Your task to perform on an android device: Search for vintage wall art on Etsy. Image 0: 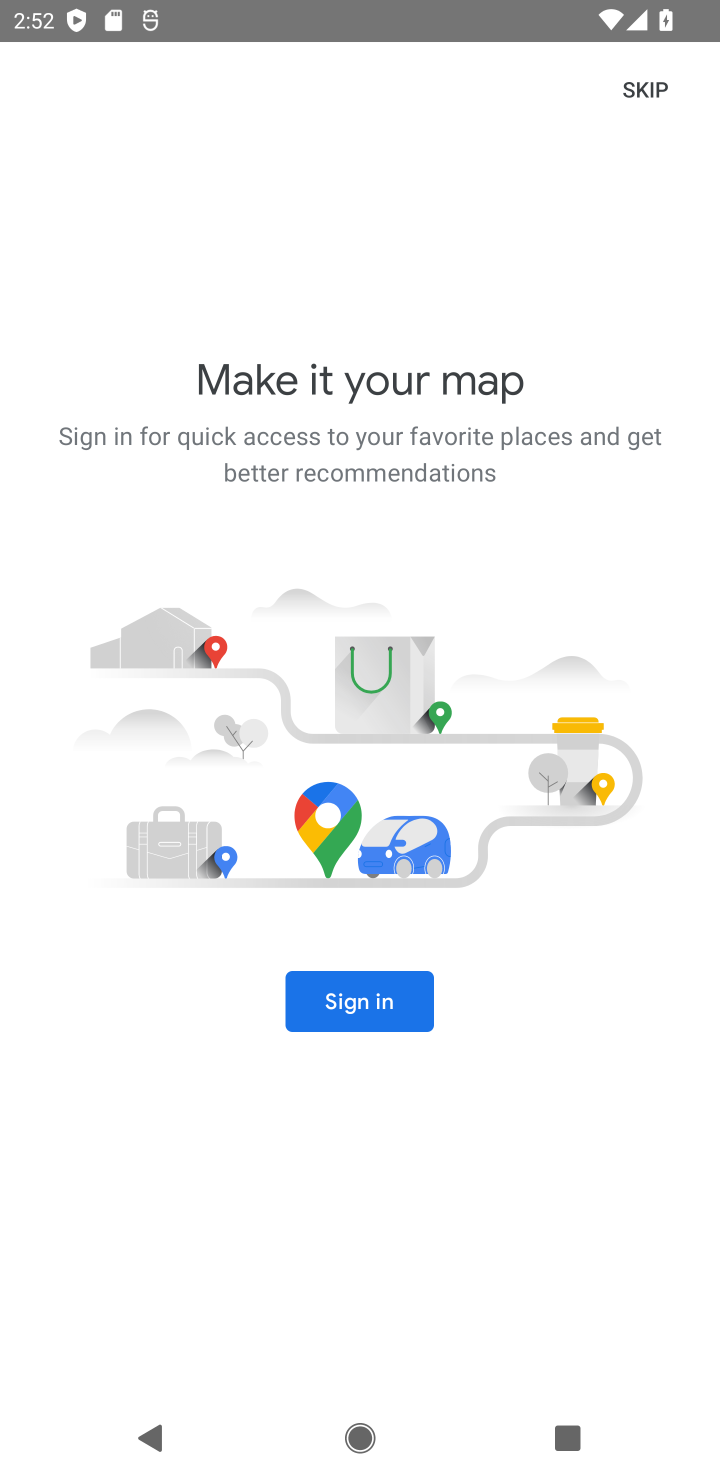
Step 0: press home button
Your task to perform on an android device: Search for vintage wall art on Etsy. Image 1: 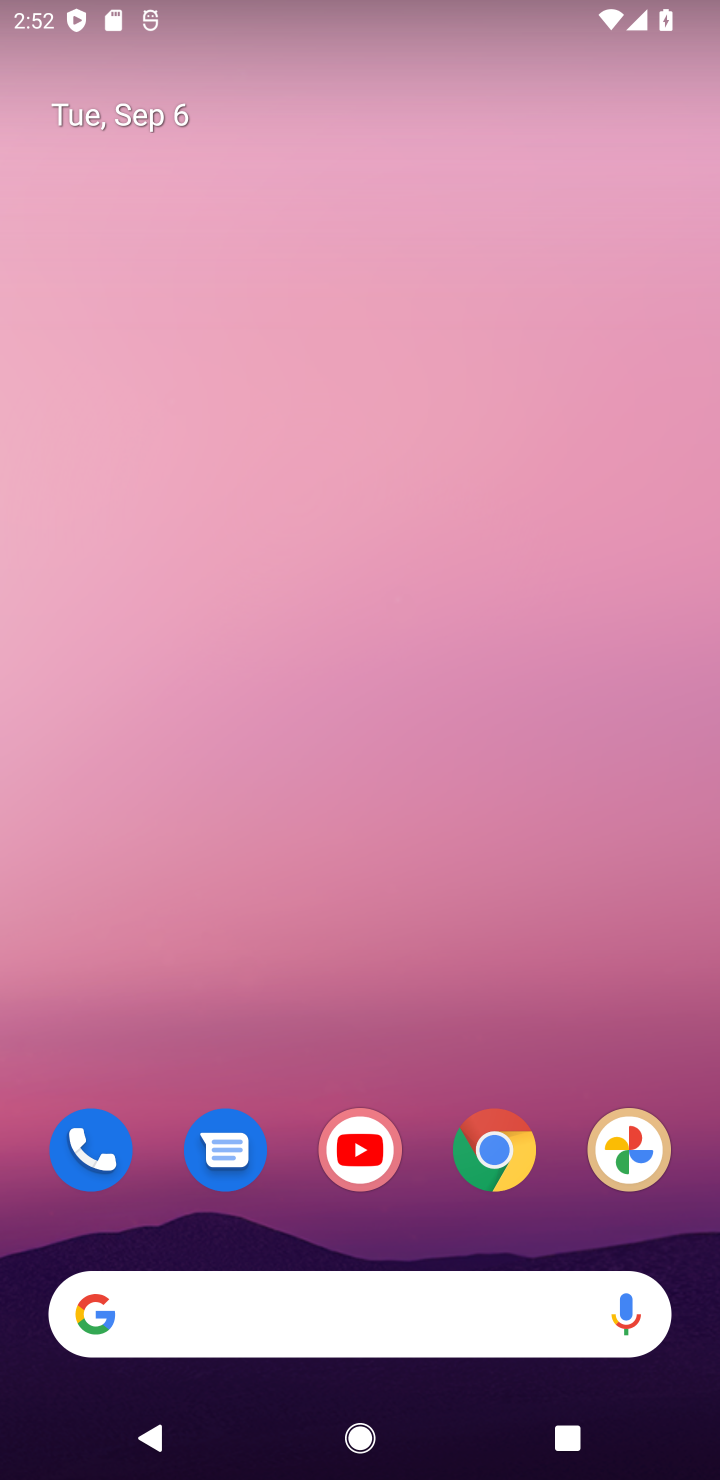
Step 1: click (484, 1155)
Your task to perform on an android device: Search for vintage wall art on Etsy. Image 2: 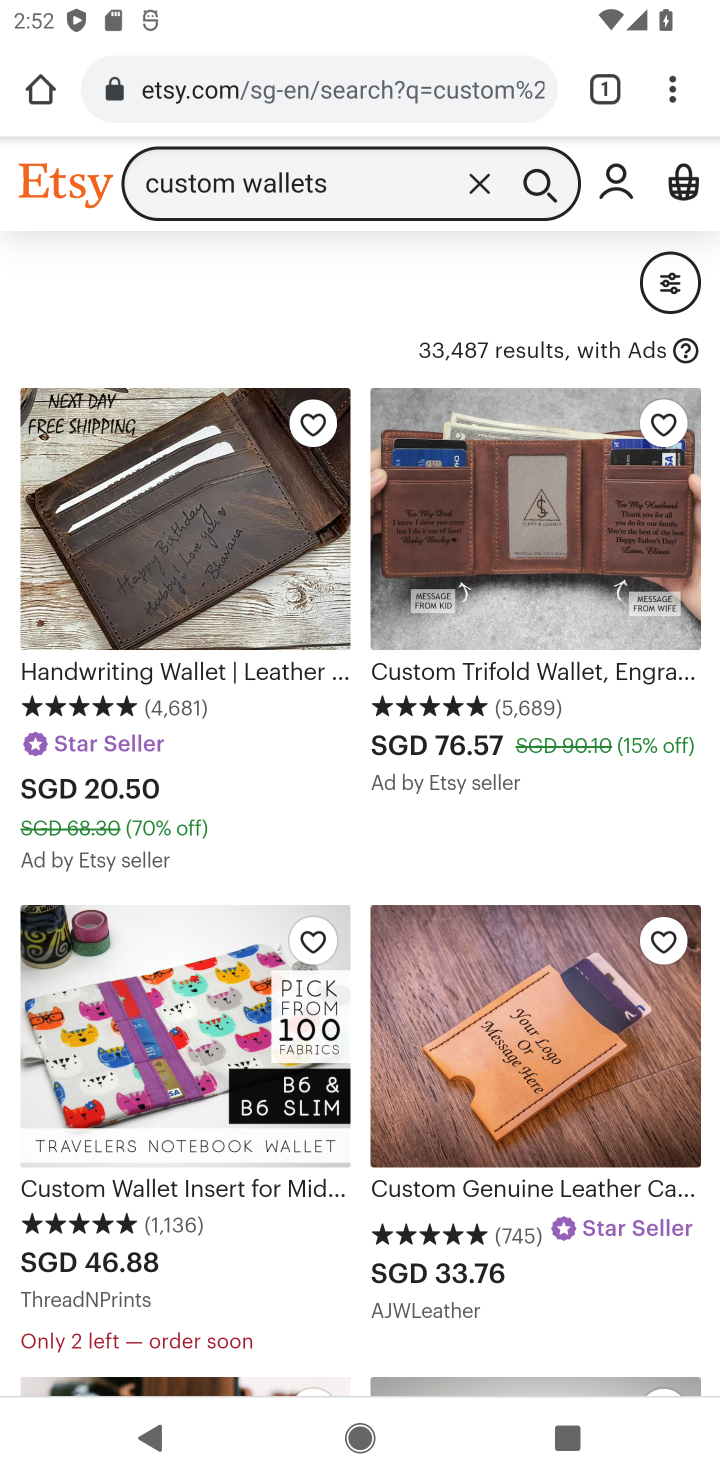
Step 2: click (536, 185)
Your task to perform on an android device: Search for vintage wall art on Etsy. Image 3: 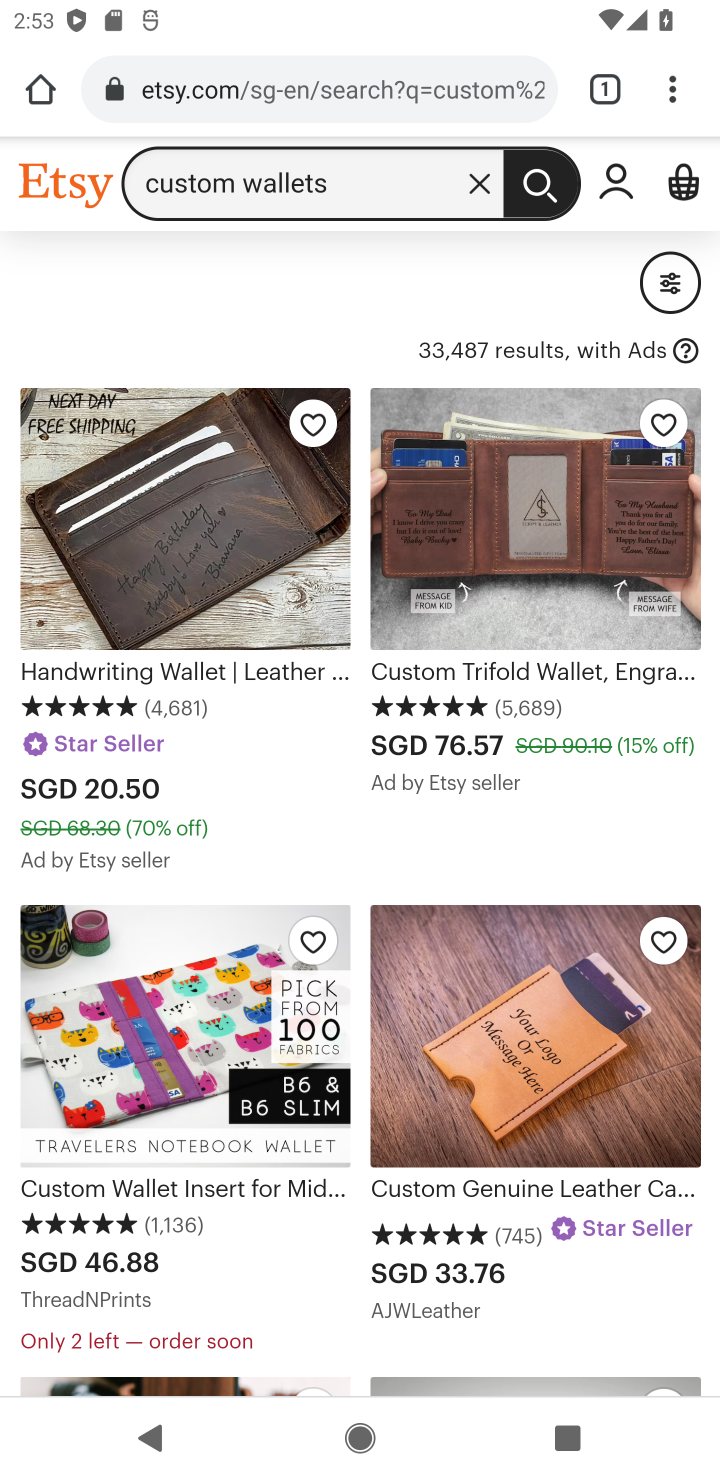
Step 3: click (478, 194)
Your task to perform on an android device: Search for vintage wall art on Etsy. Image 4: 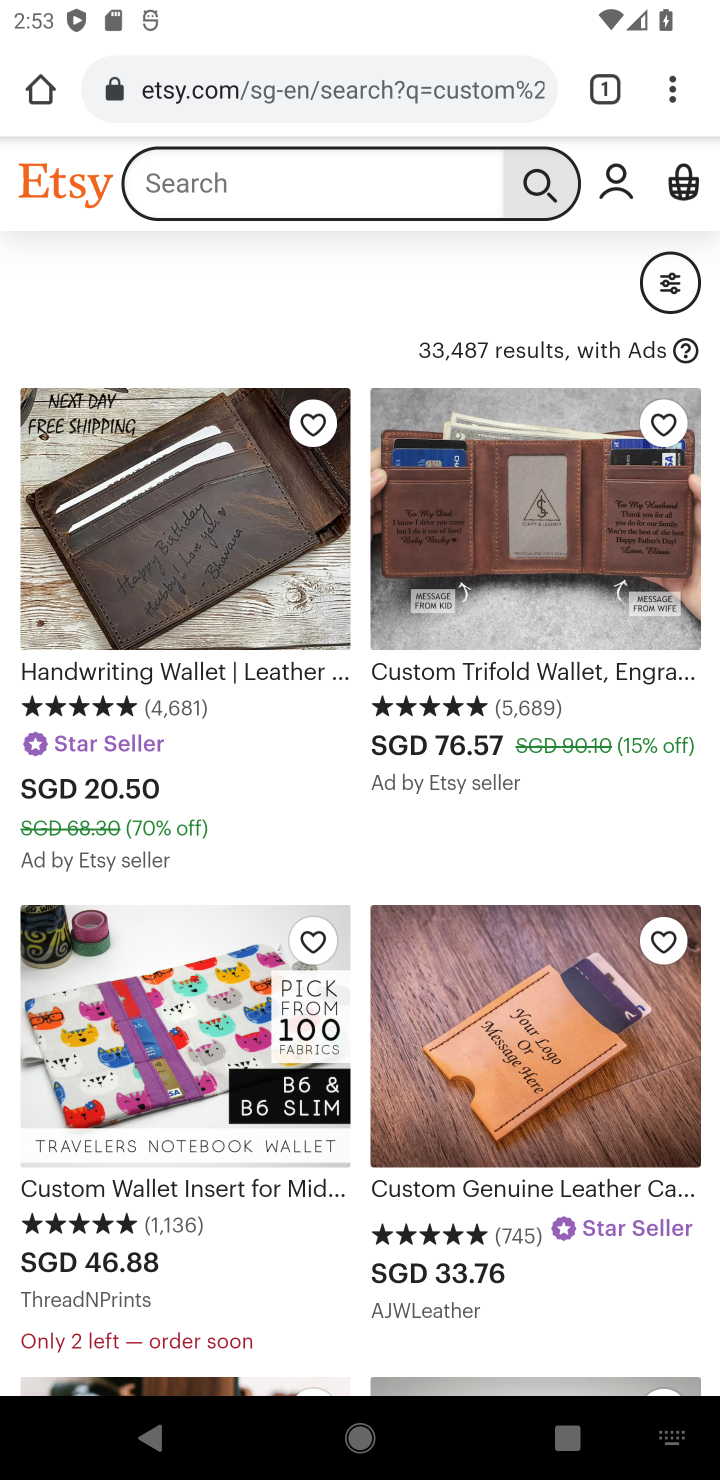
Step 4: click (249, 178)
Your task to perform on an android device: Search for vintage wall art on Etsy. Image 5: 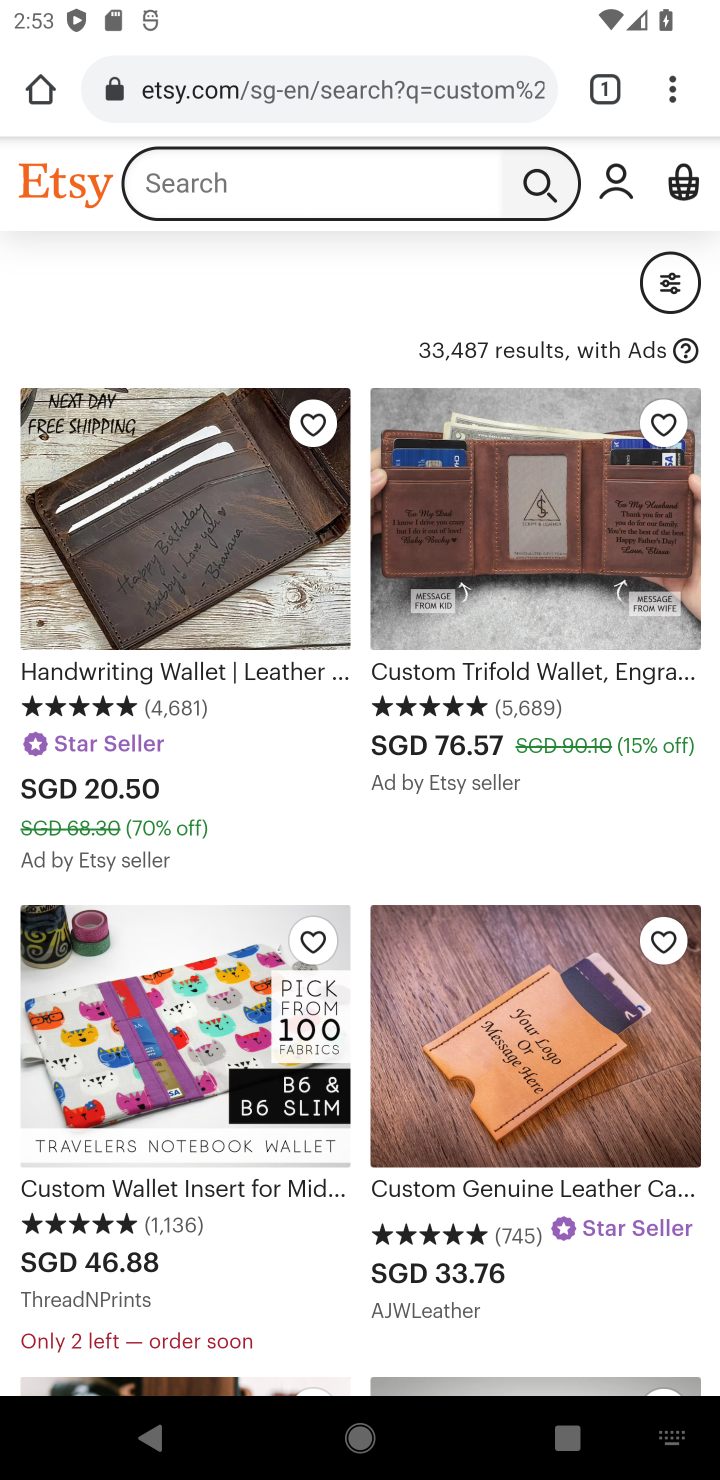
Step 5: type "vintage wall art"
Your task to perform on an android device: Search for vintage wall art on Etsy. Image 6: 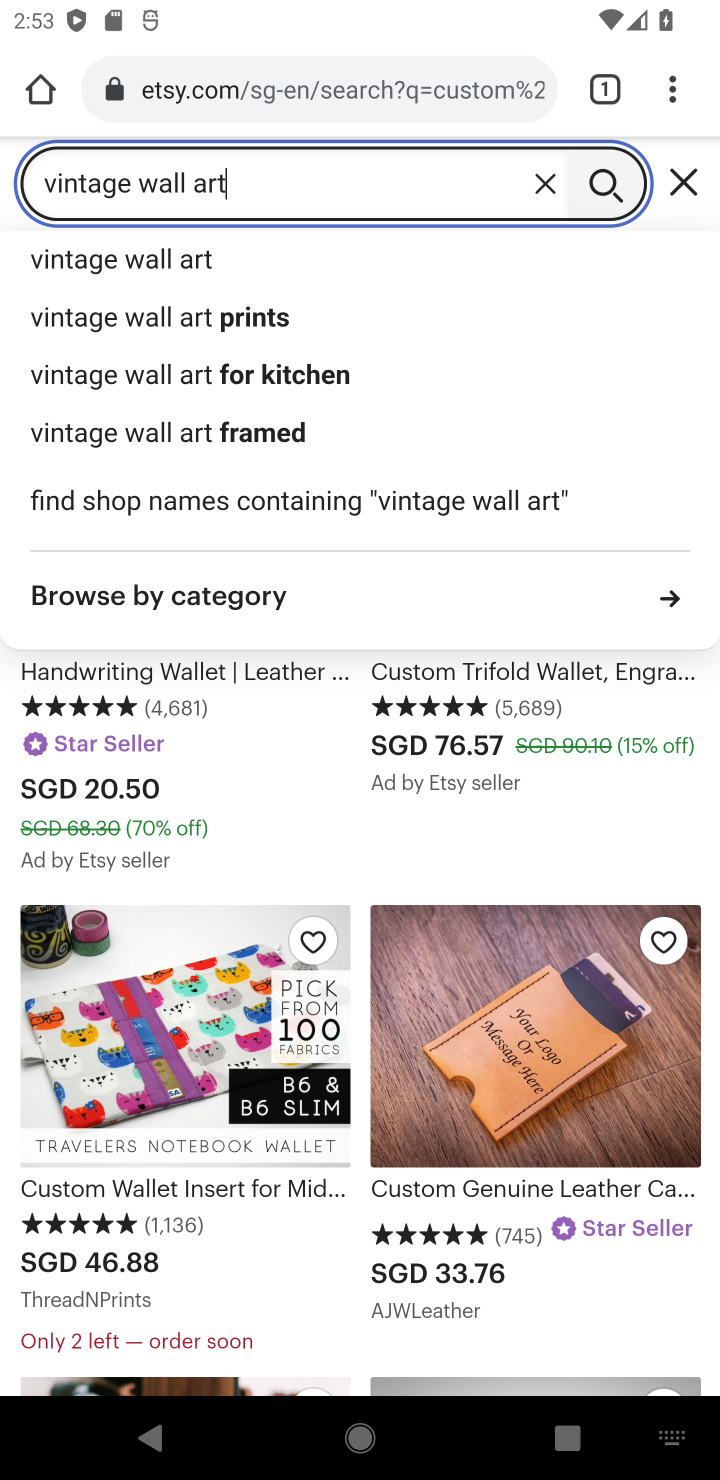
Step 6: click (158, 280)
Your task to perform on an android device: Search for vintage wall art on Etsy. Image 7: 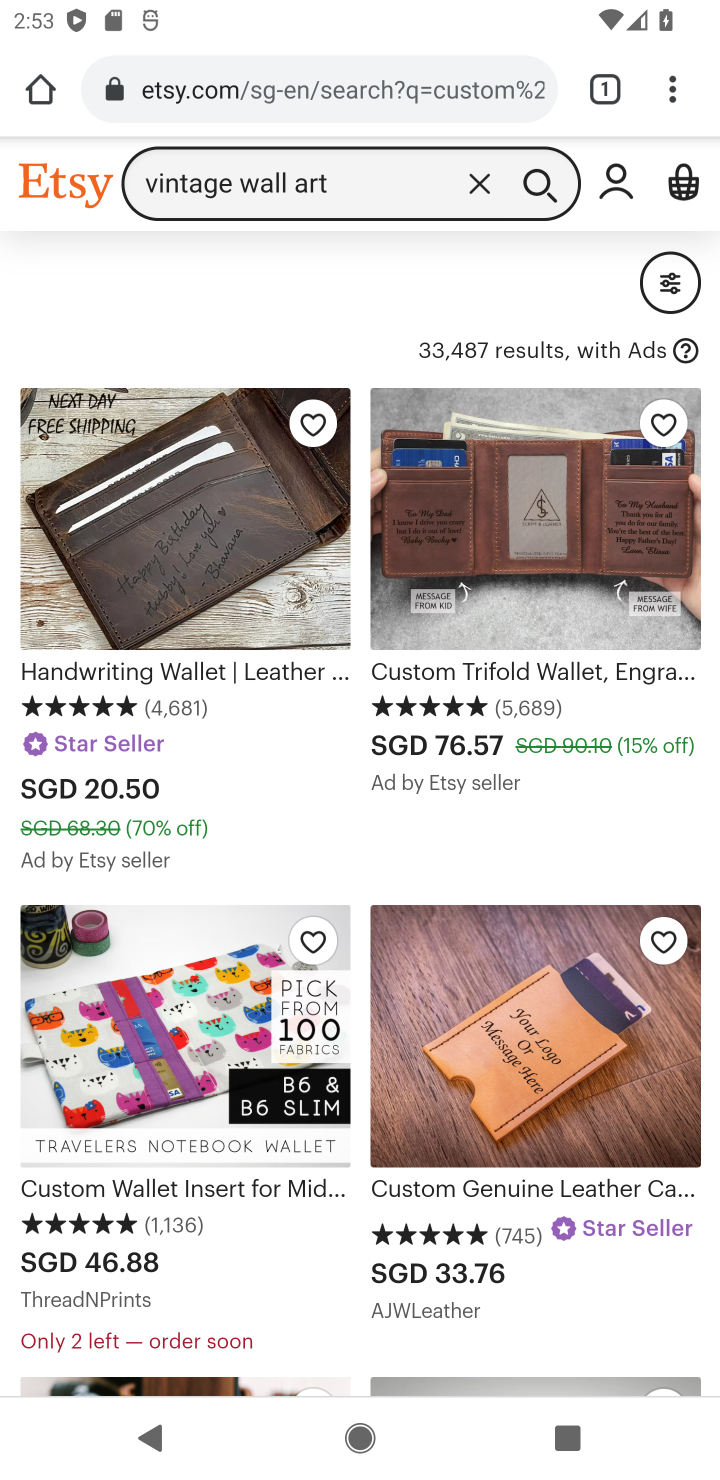
Step 7: click (535, 187)
Your task to perform on an android device: Search for vintage wall art on Etsy. Image 8: 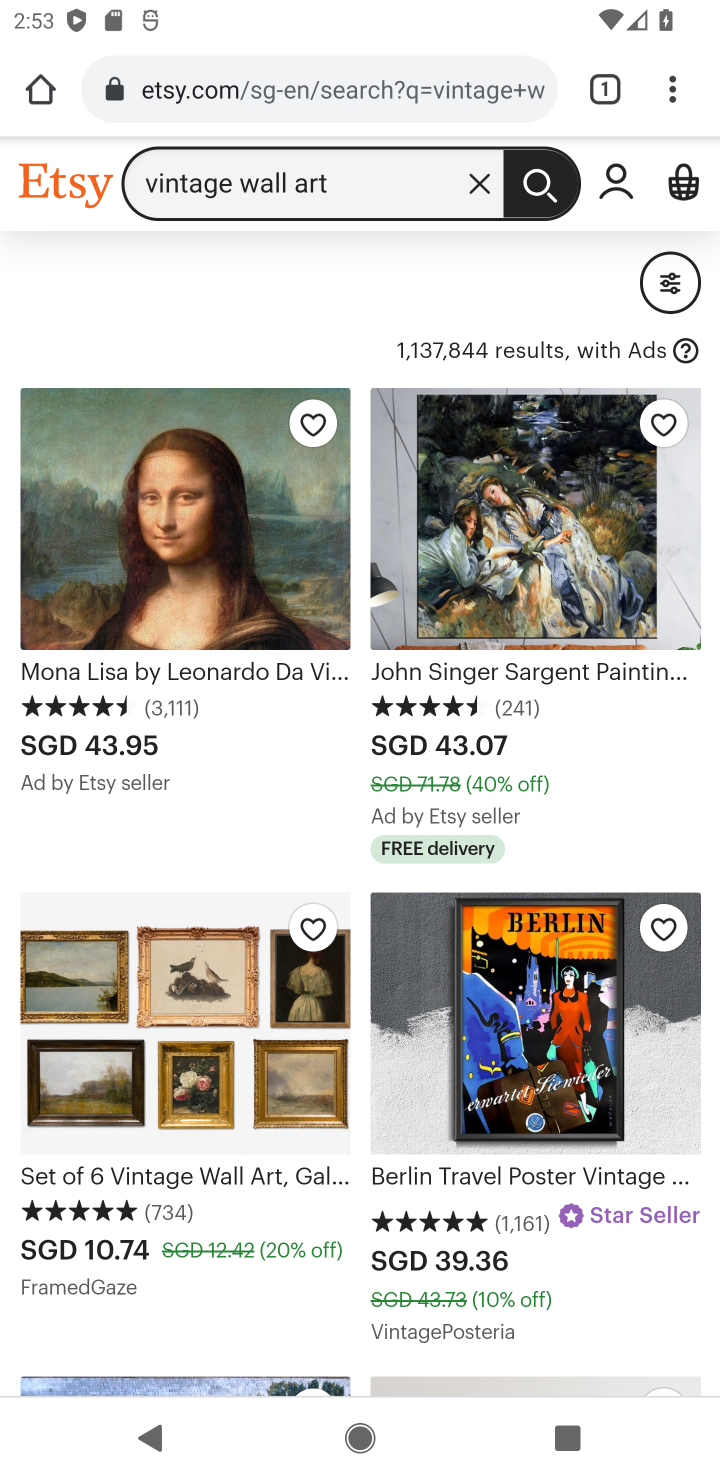
Step 8: task complete